Your task to perform on an android device: check the backup settings in the google photos Image 0: 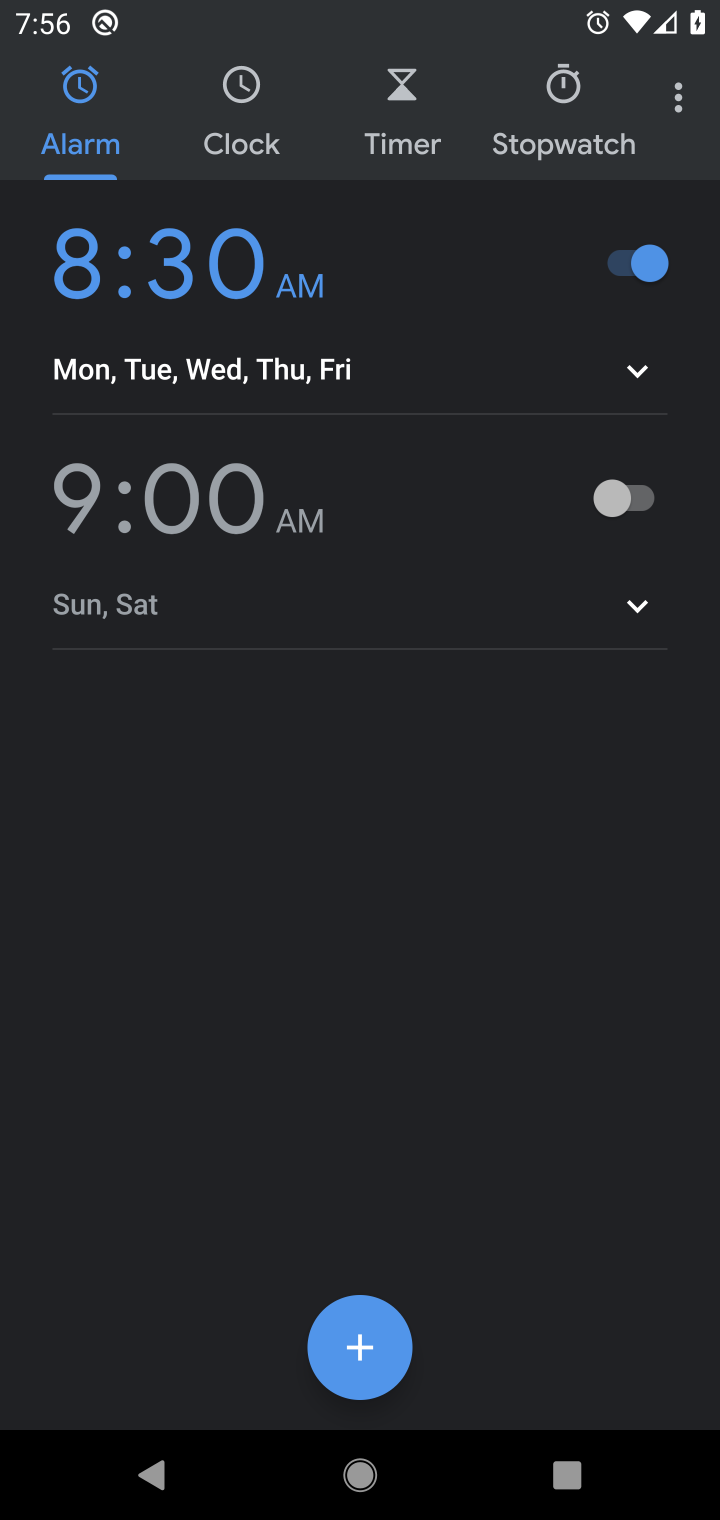
Step 0: press home button
Your task to perform on an android device: check the backup settings in the google photos Image 1: 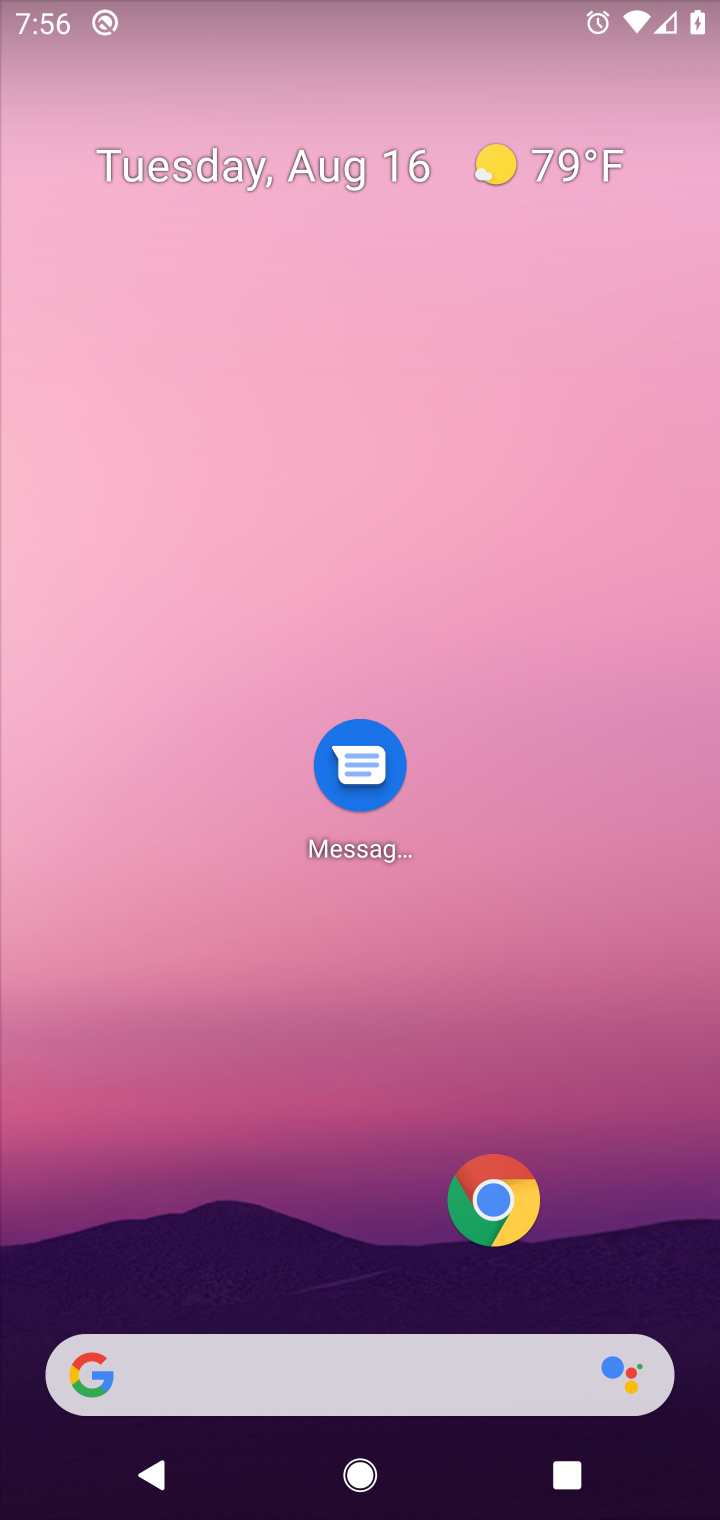
Step 1: drag from (79, 1459) to (382, 624)
Your task to perform on an android device: check the backup settings in the google photos Image 2: 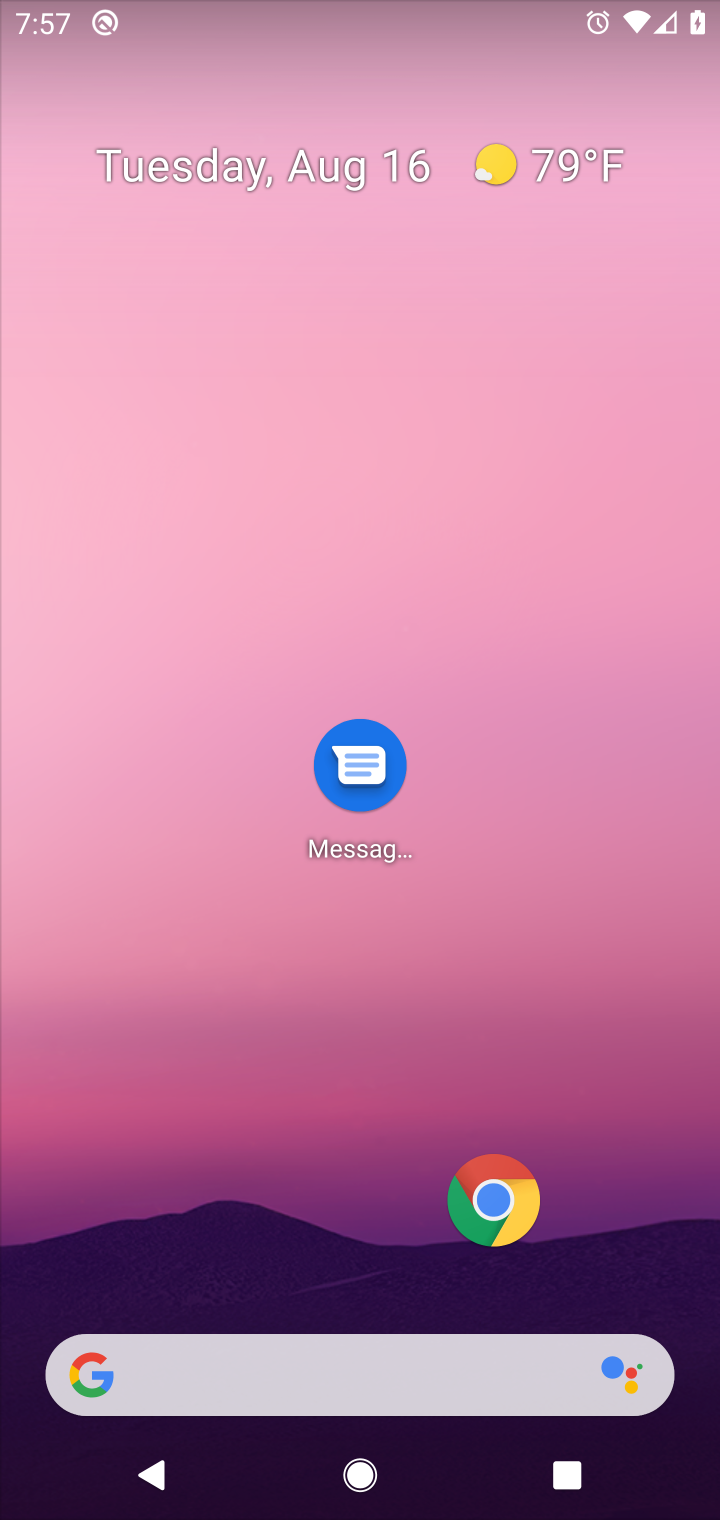
Step 2: drag from (82, 1473) to (449, 523)
Your task to perform on an android device: check the backup settings in the google photos Image 3: 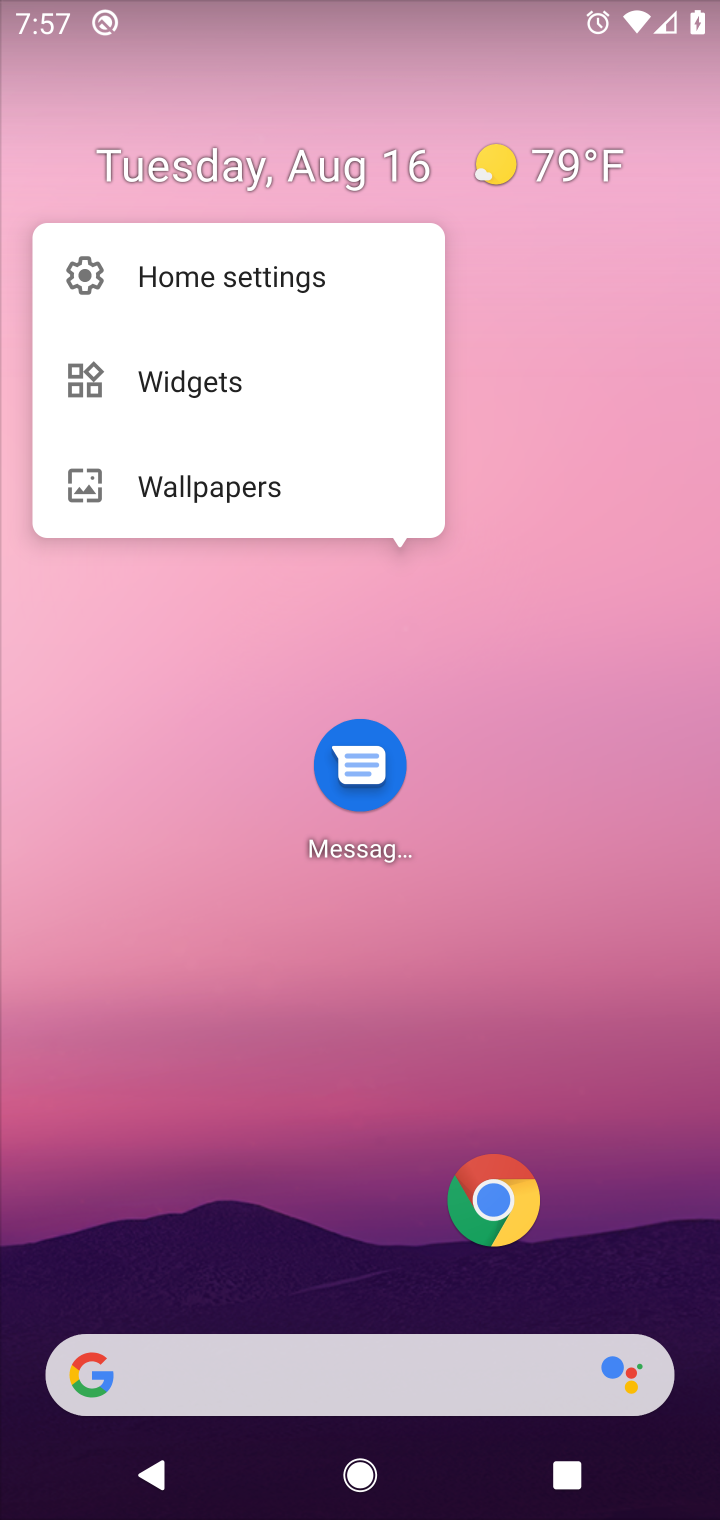
Step 3: click (701, 348)
Your task to perform on an android device: check the backup settings in the google photos Image 4: 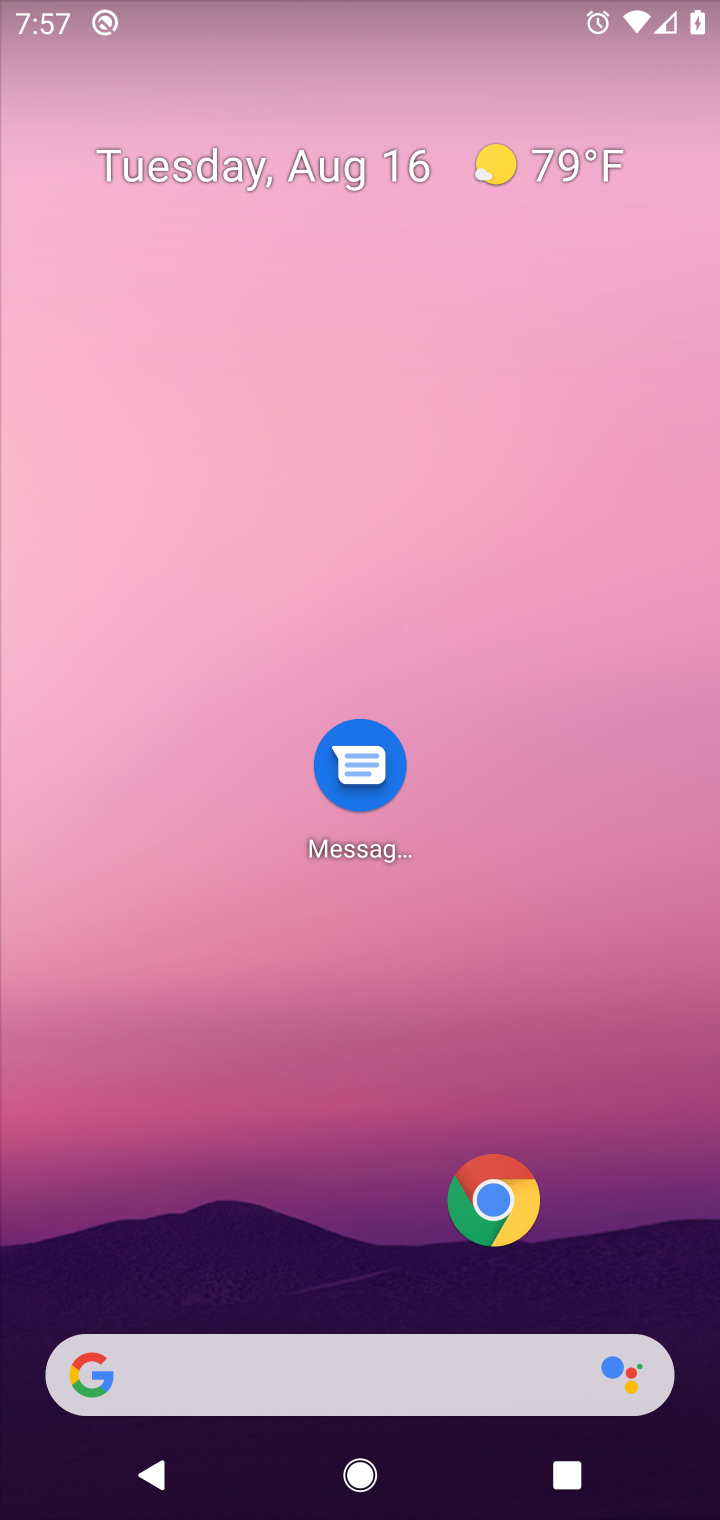
Step 4: task complete